Your task to perform on an android device: change the clock display to digital Image 0: 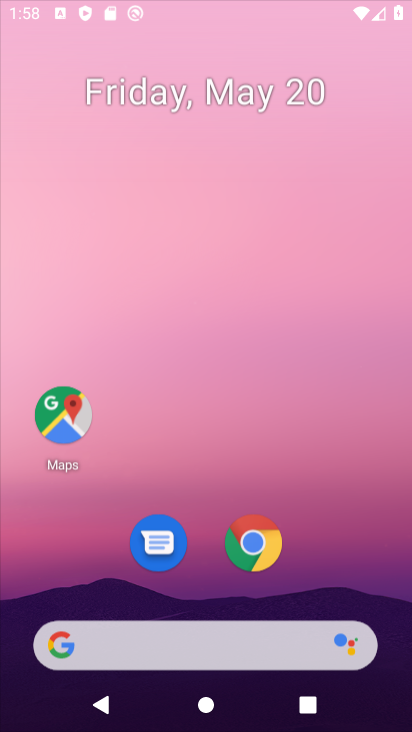
Step 0: drag from (298, 333) to (328, 2)
Your task to perform on an android device: change the clock display to digital Image 1: 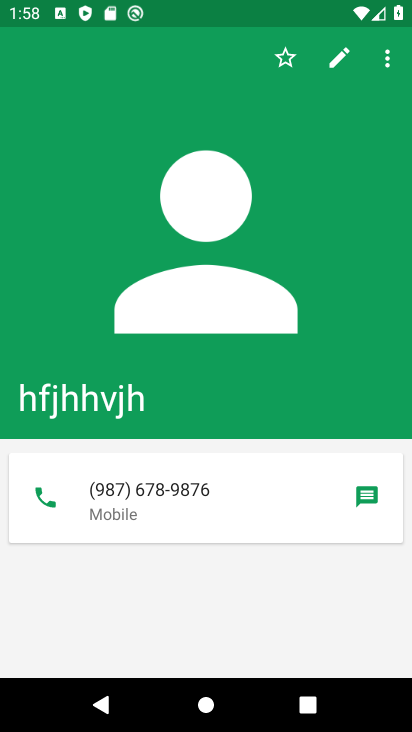
Step 1: press home button
Your task to perform on an android device: change the clock display to digital Image 2: 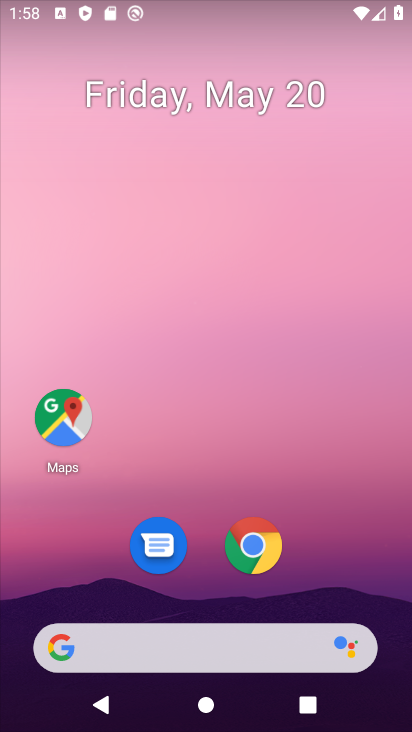
Step 2: drag from (263, 605) to (329, 19)
Your task to perform on an android device: change the clock display to digital Image 3: 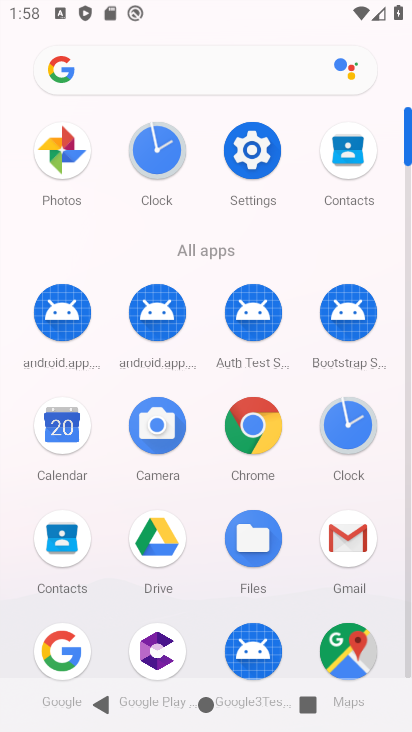
Step 3: click (369, 424)
Your task to perform on an android device: change the clock display to digital Image 4: 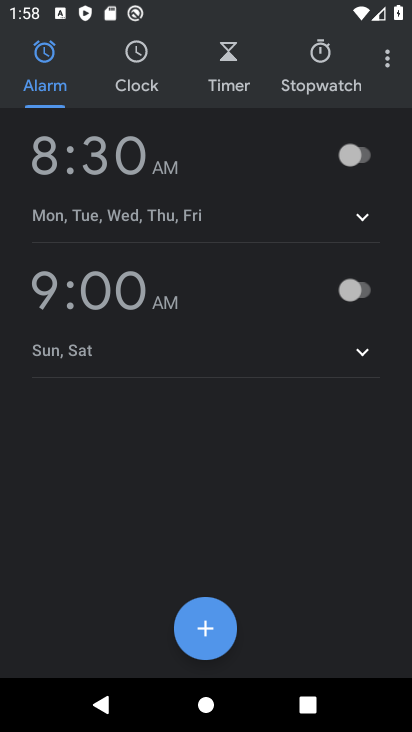
Step 4: click (386, 69)
Your task to perform on an android device: change the clock display to digital Image 5: 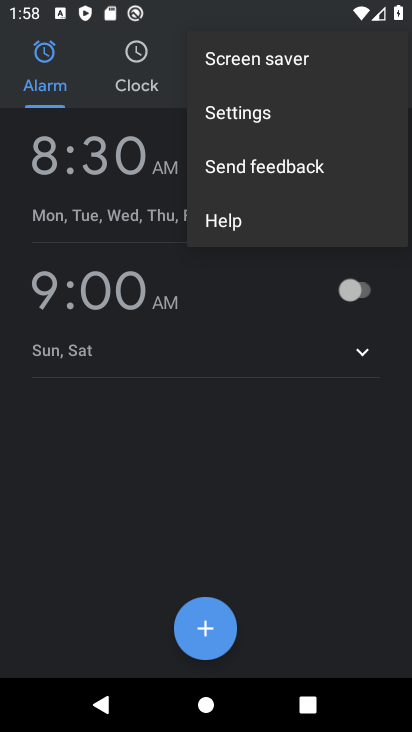
Step 5: click (251, 115)
Your task to perform on an android device: change the clock display to digital Image 6: 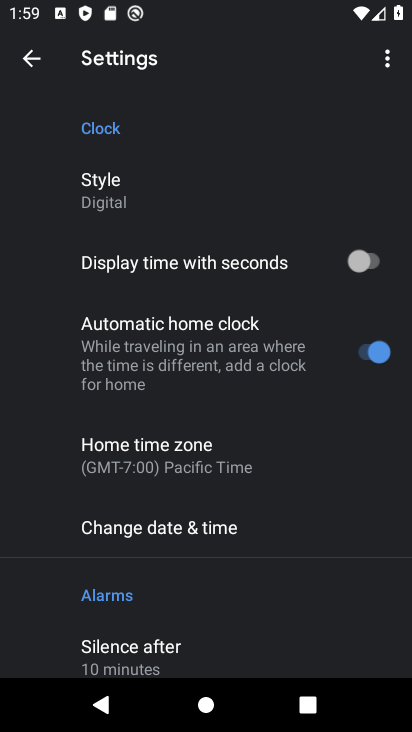
Step 6: click (126, 196)
Your task to perform on an android device: change the clock display to digital Image 7: 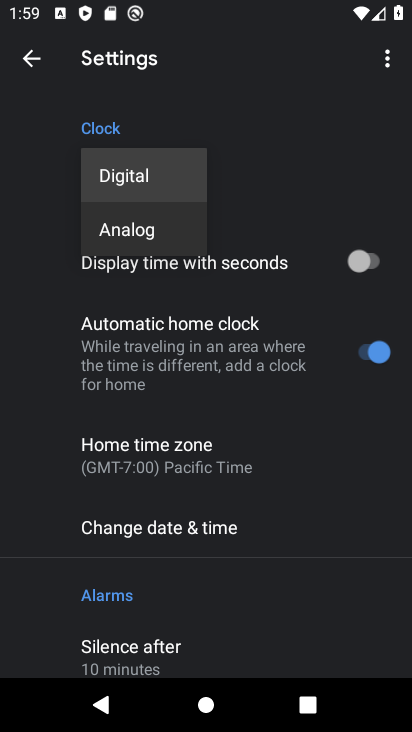
Step 7: click (160, 166)
Your task to perform on an android device: change the clock display to digital Image 8: 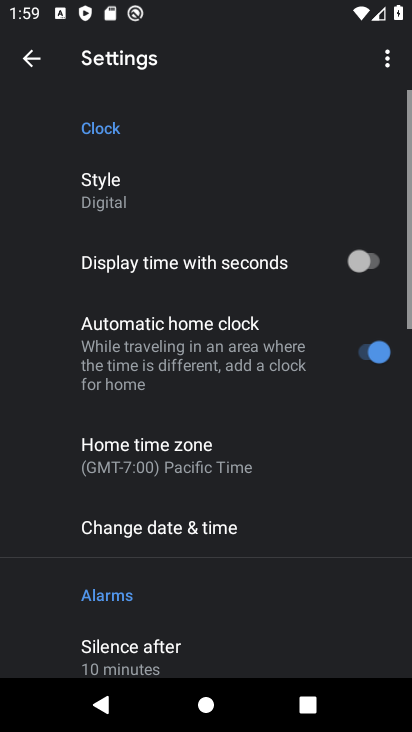
Step 8: task complete